Your task to perform on an android device: Open the music app Image 0: 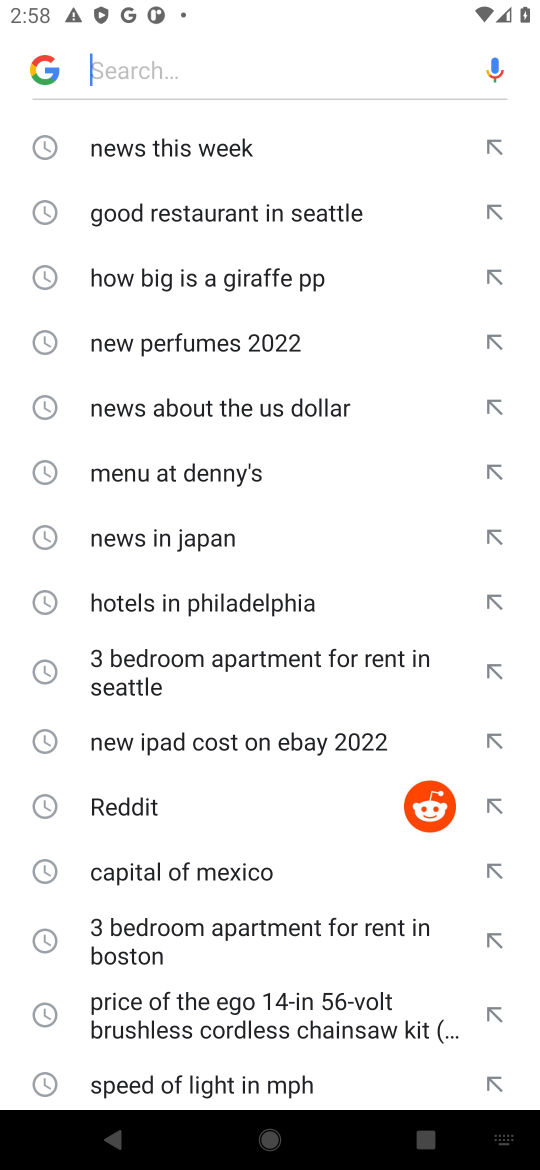
Step 0: press home button
Your task to perform on an android device: Open the music app Image 1: 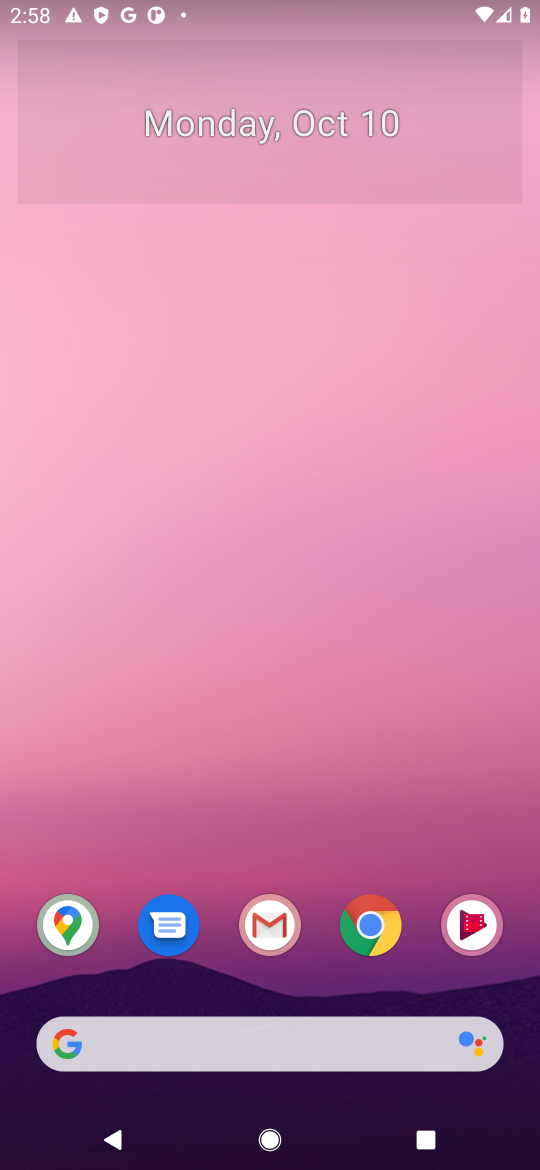
Step 1: drag from (303, 1047) to (326, 261)
Your task to perform on an android device: Open the music app Image 2: 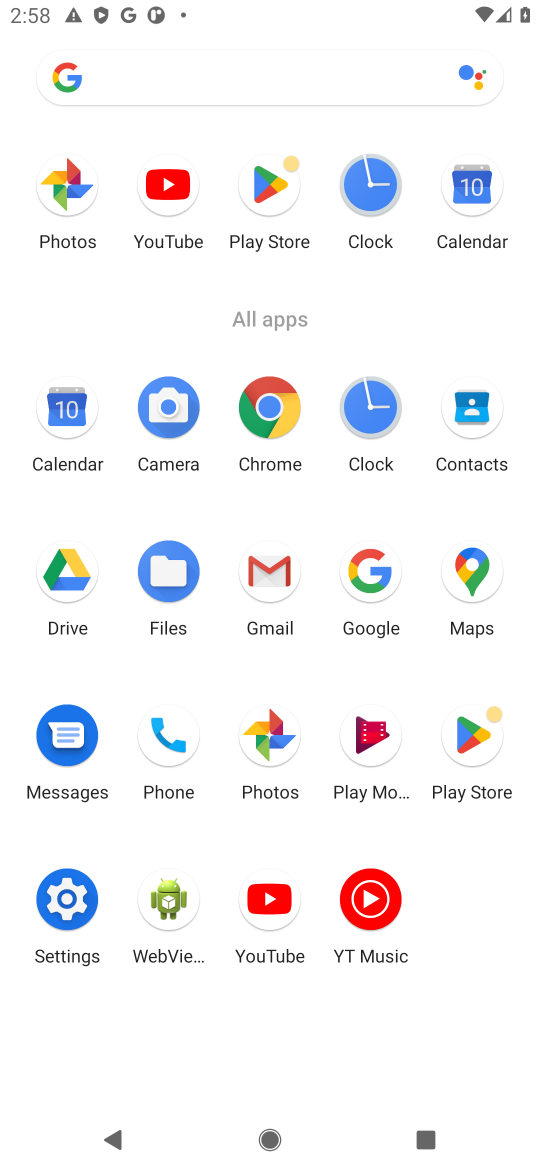
Step 2: click (365, 913)
Your task to perform on an android device: Open the music app Image 3: 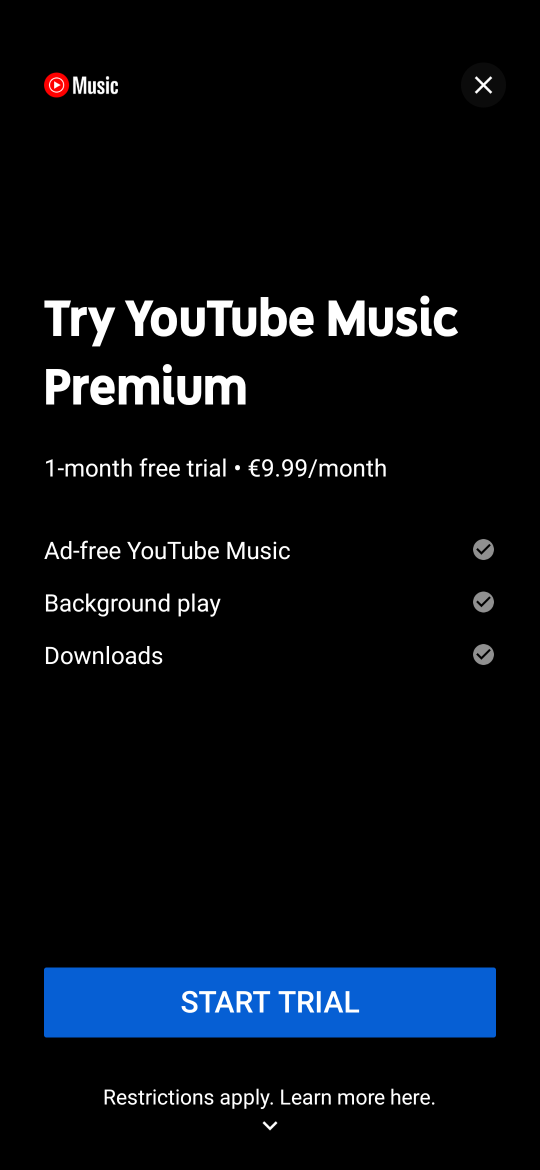
Step 3: task complete